Your task to perform on an android device: Show me the alarms in the clock app Image 0: 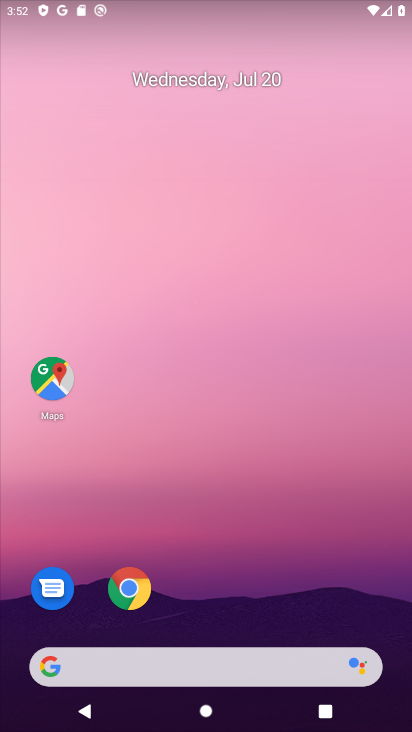
Step 0: drag from (194, 596) to (213, 0)
Your task to perform on an android device: Show me the alarms in the clock app Image 1: 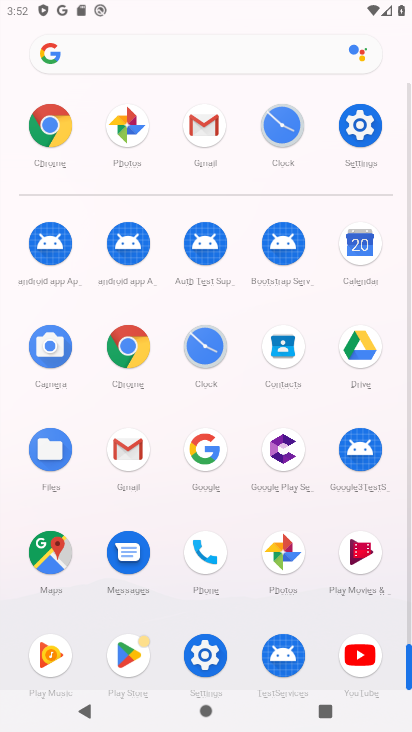
Step 1: click (287, 157)
Your task to perform on an android device: Show me the alarms in the clock app Image 2: 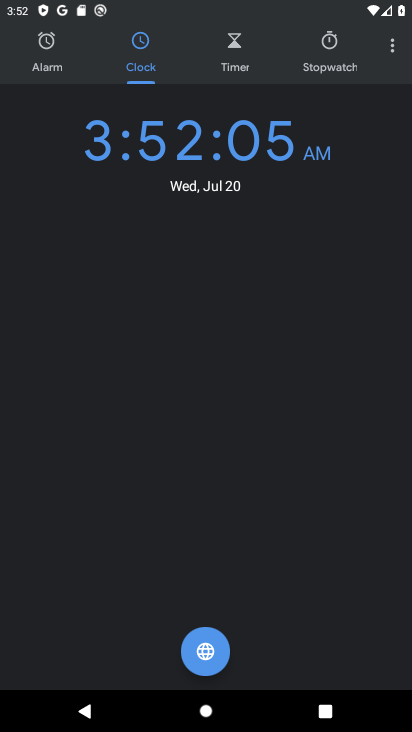
Step 2: click (43, 75)
Your task to perform on an android device: Show me the alarms in the clock app Image 3: 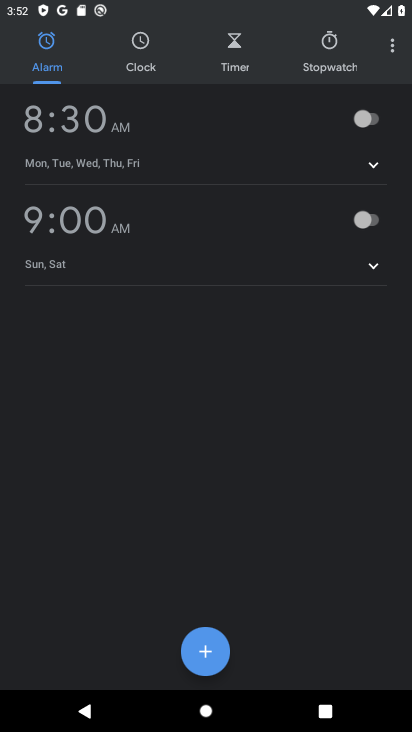
Step 3: task complete